Your task to perform on an android device: check data usage Image 0: 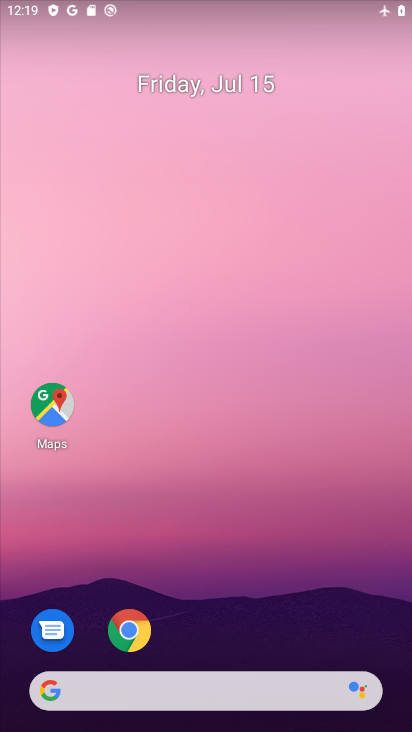
Step 0: drag from (289, 5) to (275, 491)
Your task to perform on an android device: check data usage Image 1: 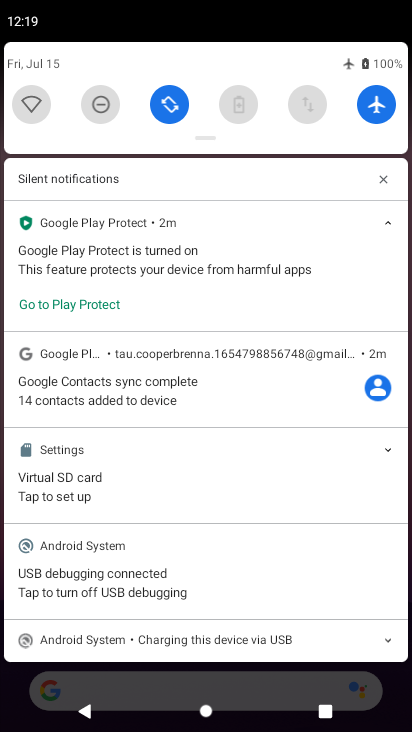
Step 1: drag from (208, 138) to (175, 623)
Your task to perform on an android device: check data usage Image 2: 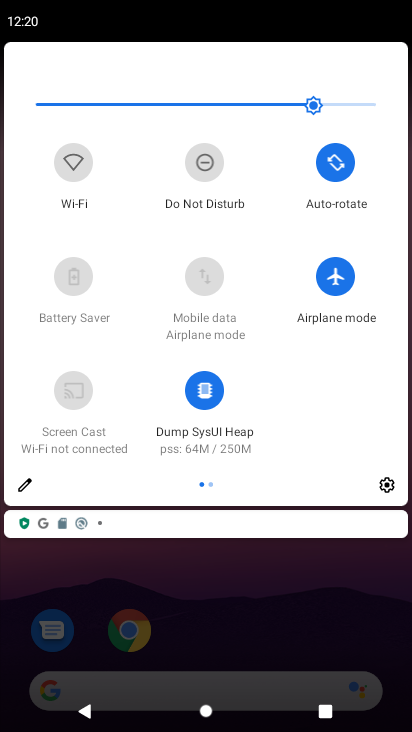
Step 2: click (323, 266)
Your task to perform on an android device: check data usage Image 3: 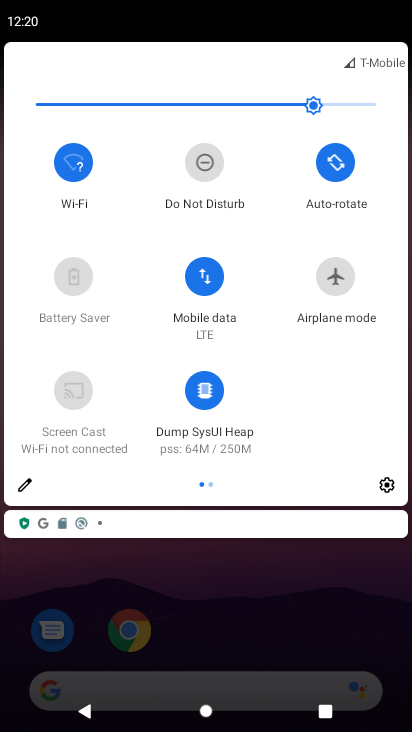
Step 3: click (204, 280)
Your task to perform on an android device: check data usage Image 4: 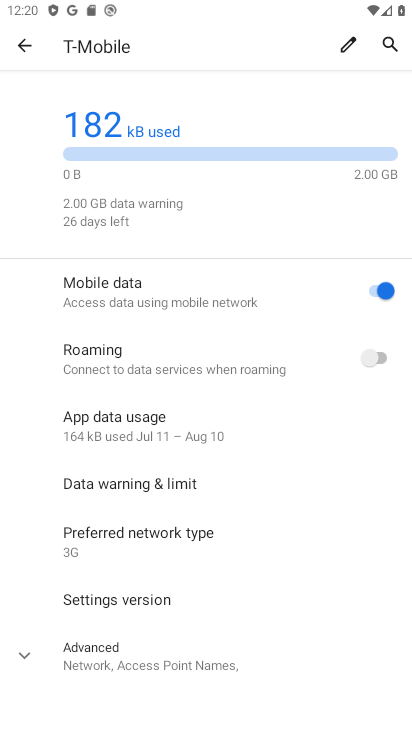
Step 4: task complete